Your task to perform on an android device: toggle sleep mode Image 0: 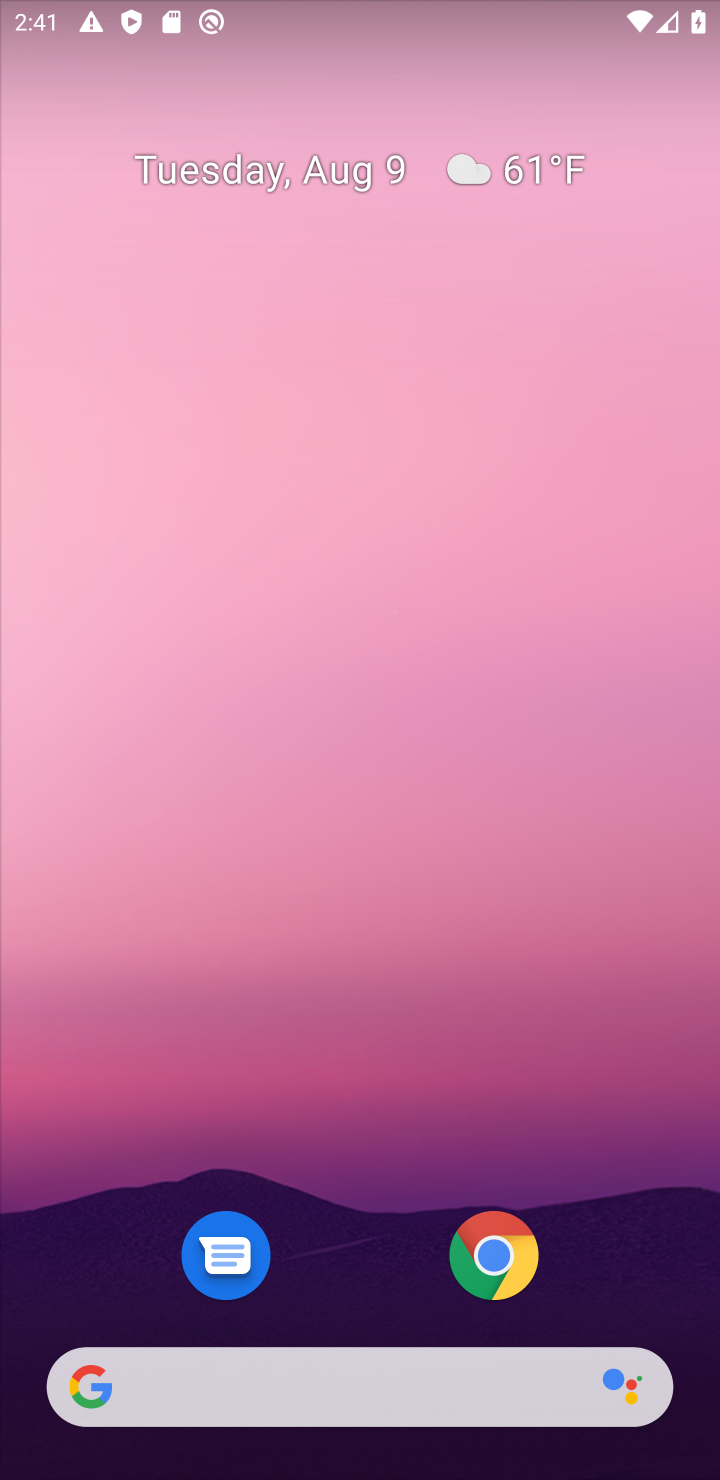
Step 0: drag from (235, 1264) to (231, 413)
Your task to perform on an android device: toggle sleep mode Image 1: 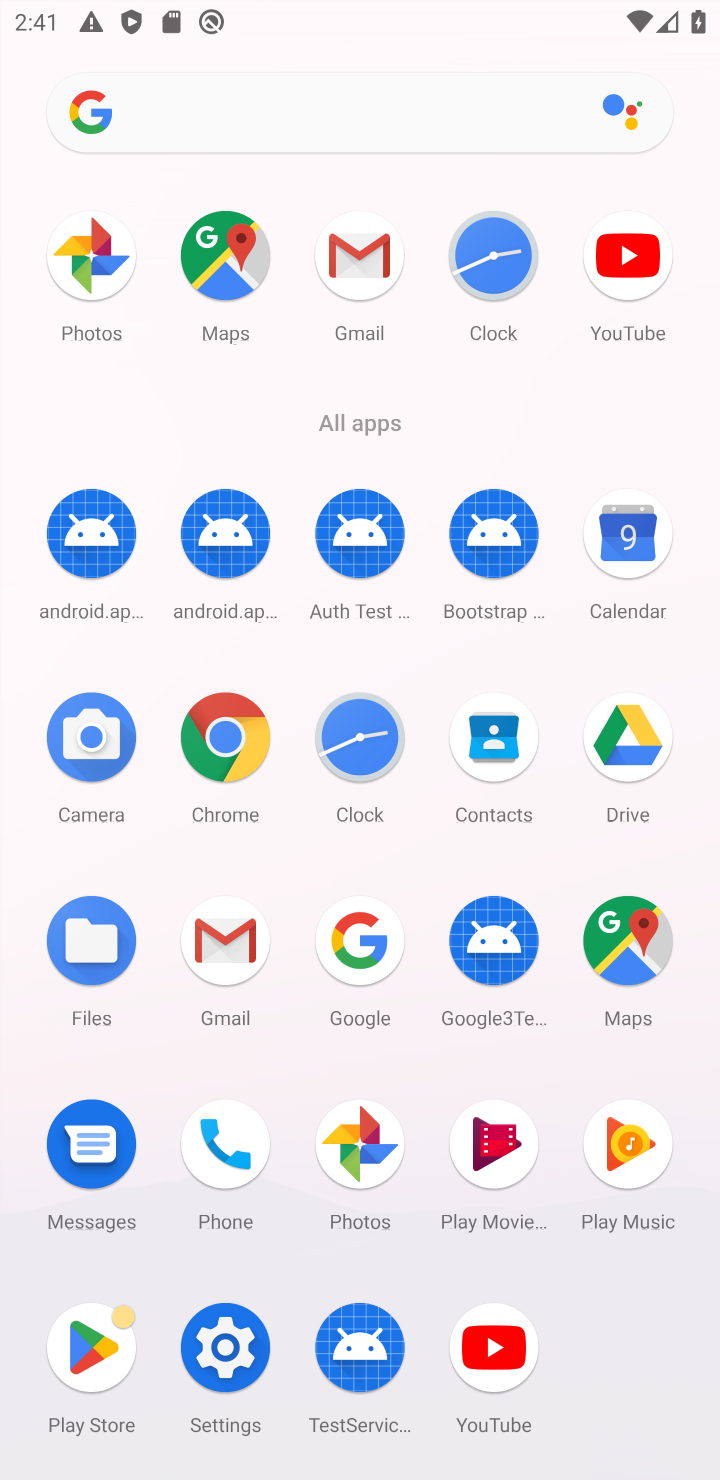
Step 1: click (198, 1339)
Your task to perform on an android device: toggle sleep mode Image 2: 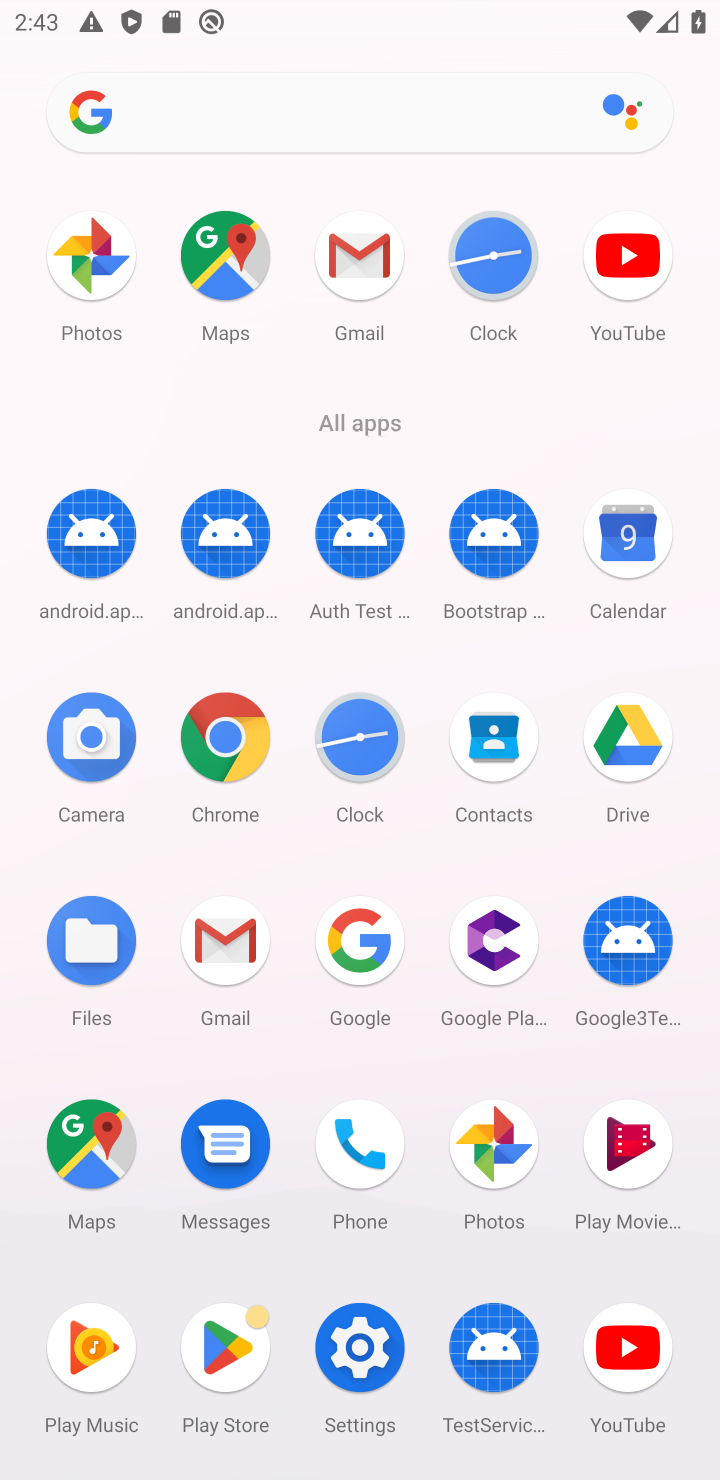
Step 2: click (346, 1339)
Your task to perform on an android device: toggle sleep mode Image 3: 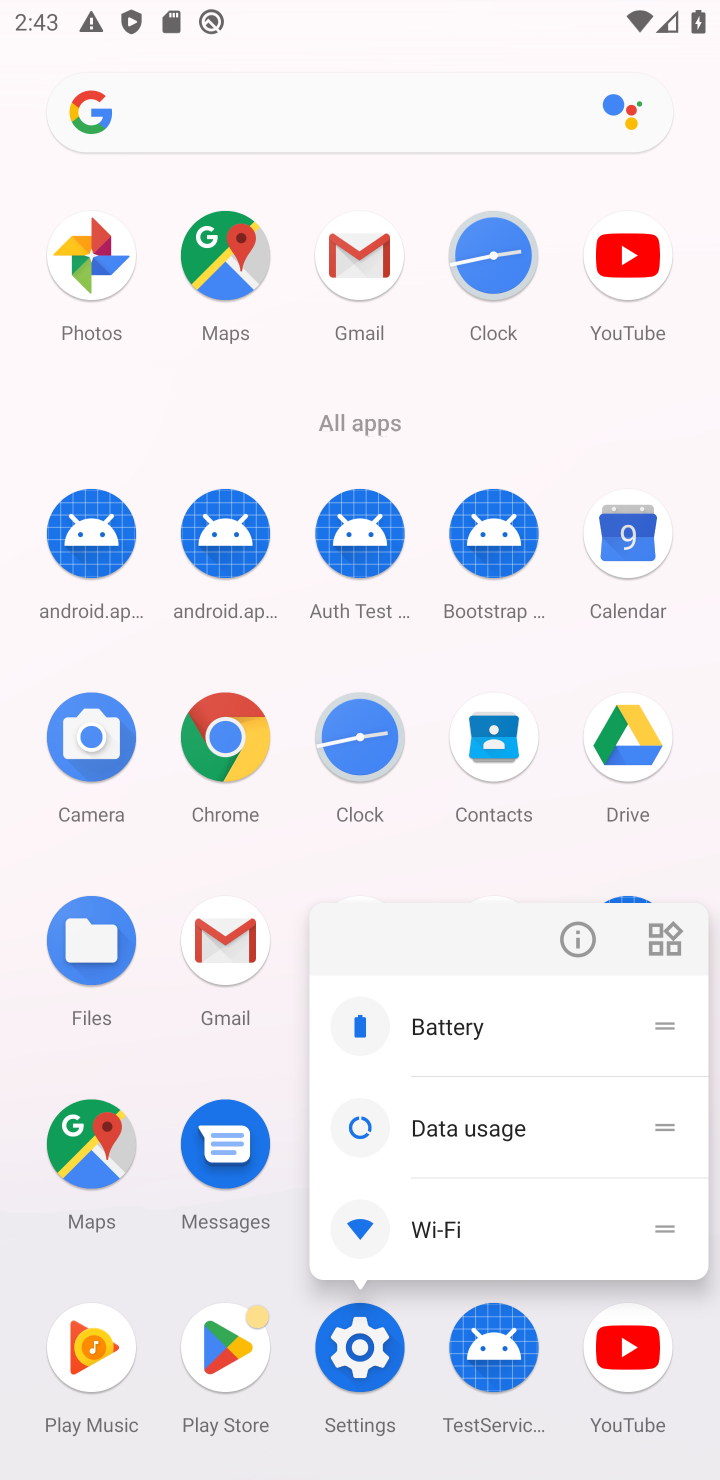
Step 3: click (342, 1338)
Your task to perform on an android device: toggle sleep mode Image 4: 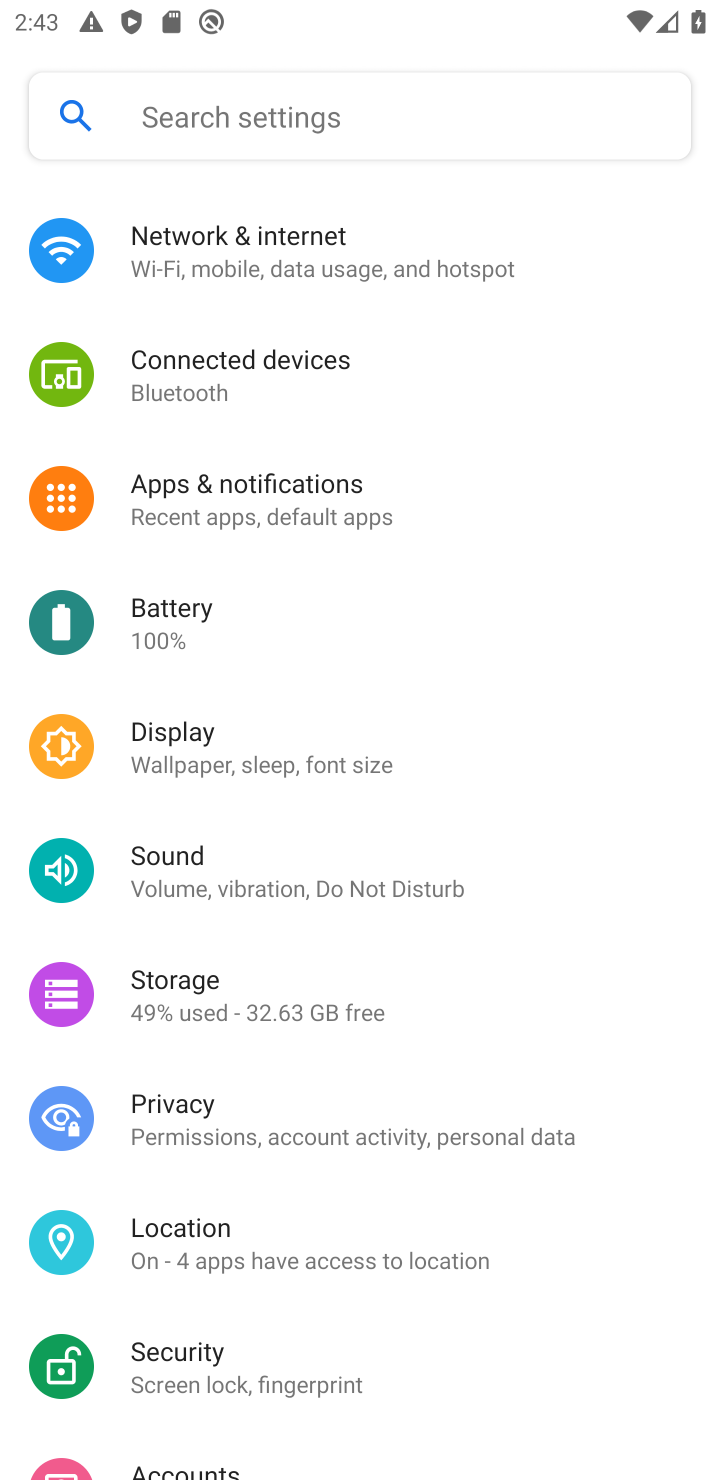
Step 4: task complete